Your task to perform on an android device: Search for sushi restaurants on Maps Image 0: 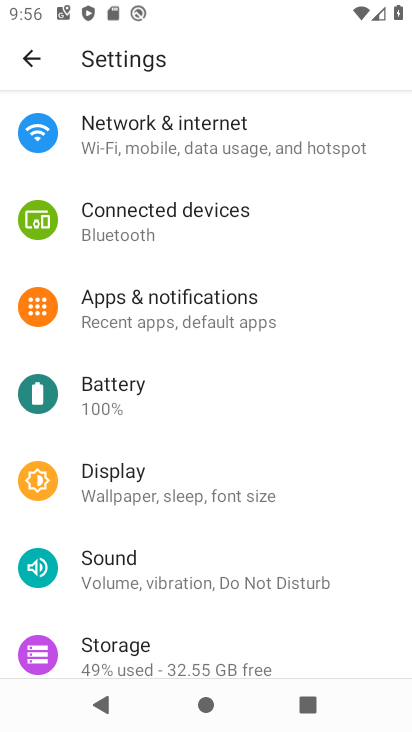
Step 0: press home button
Your task to perform on an android device: Search for sushi restaurants on Maps Image 1: 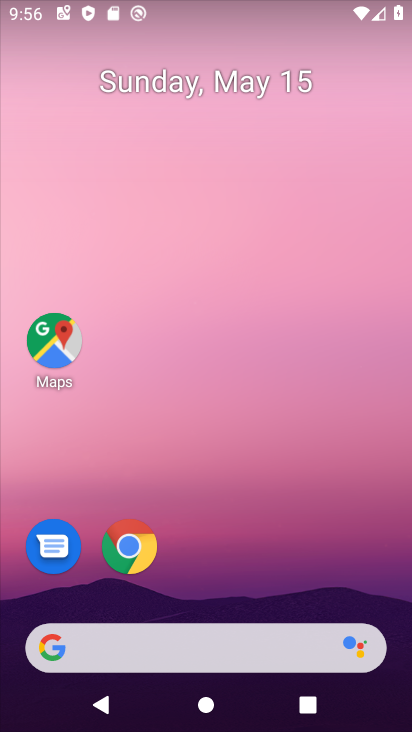
Step 1: click (53, 334)
Your task to perform on an android device: Search for sushi restaurants on Maps Image 2: 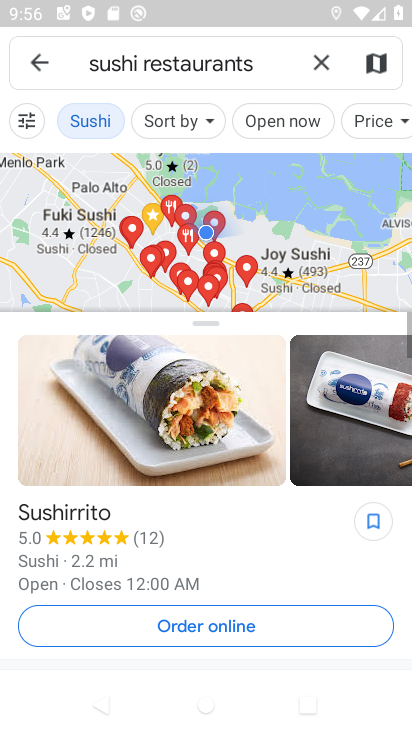
Step 2: click (251, 68)
Your task to perform on an android device: Search for sushi restaurants on Maps Image 3: 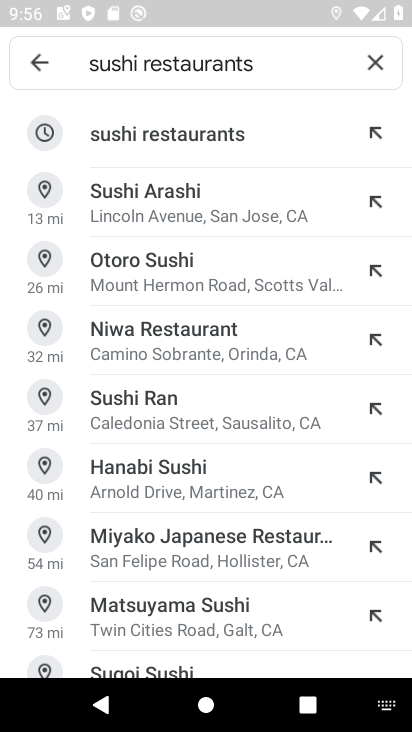
Step 3: click (275, 127)
Your task to perform on an android device: Search for sushi restaurants on Maps Image 4: 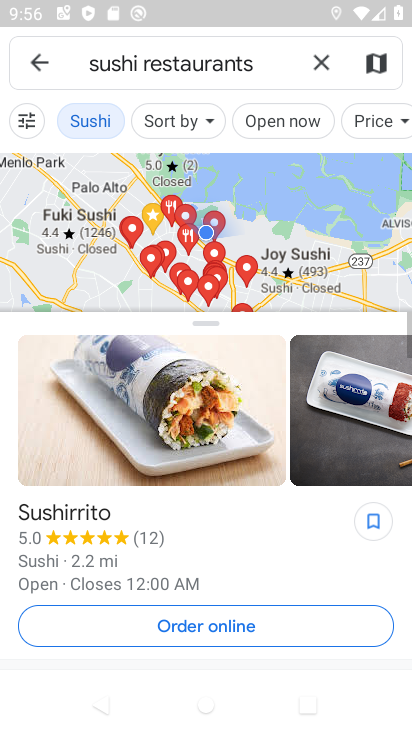
Step 4: task complete